Your task to perform on an android device: What's the weather? Image 0: 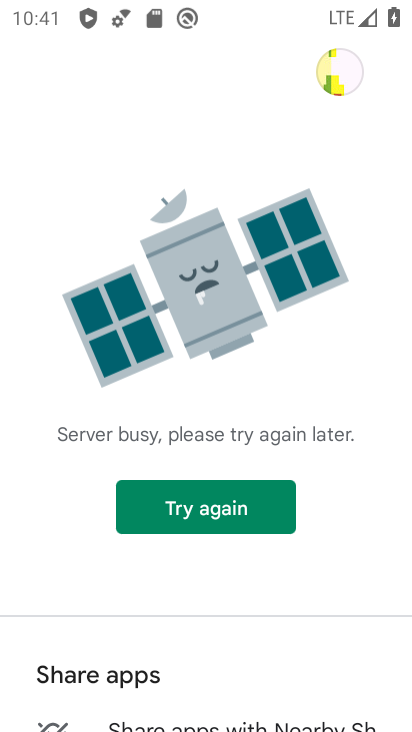
Step 0: press home button
Your task to perform on an android device: What's the weather? Image 1: 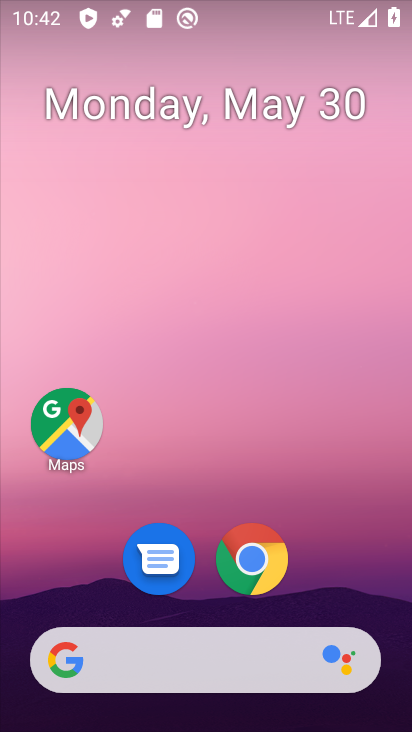
Step 1: click (268, 556)
Your task to perform on an android device: What's the weather? Image 2: 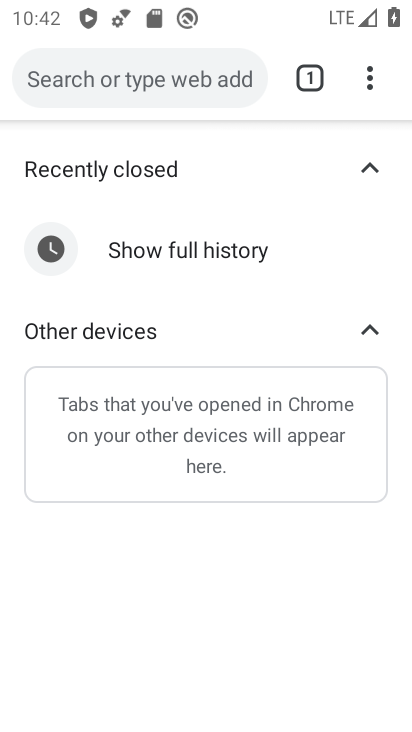
Step 2: click (239, 70)
Your task to perform on an android device: What's the weather? Image 3: 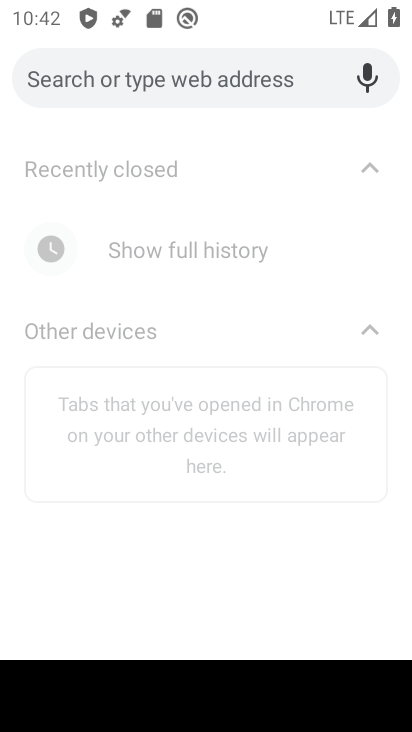
Step 3: type "weather"
Your task to perform on an android device: What's the weather? Image 4: 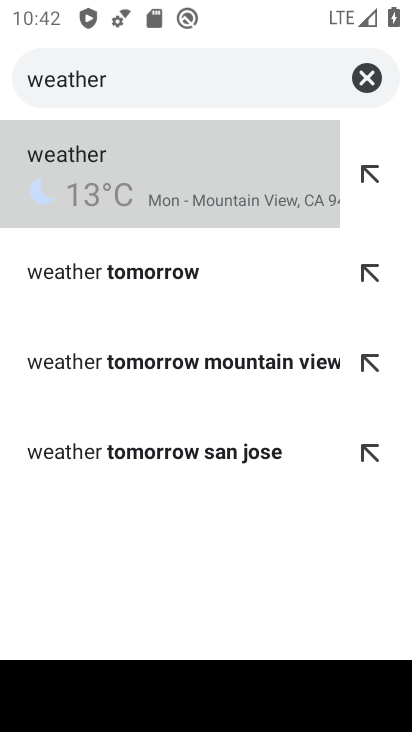
Step 4: click (219, 219)
Your task to perform on an android device: What's the weather? Image 5: 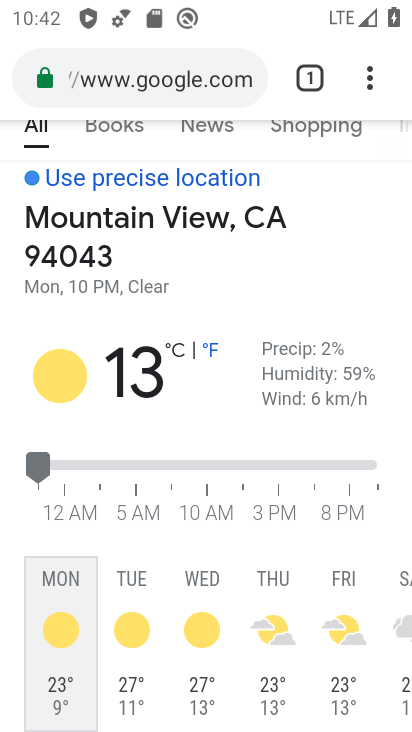
Step 5: click (116, 592)
Your task to perform on an android device: What's the weather? Image 6: 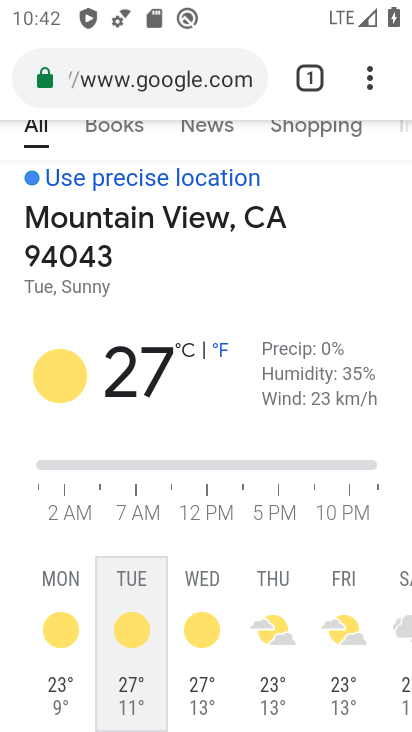
Step 6: task complete